Your task to perform on an android device: Go to Wikipedia Image 0: 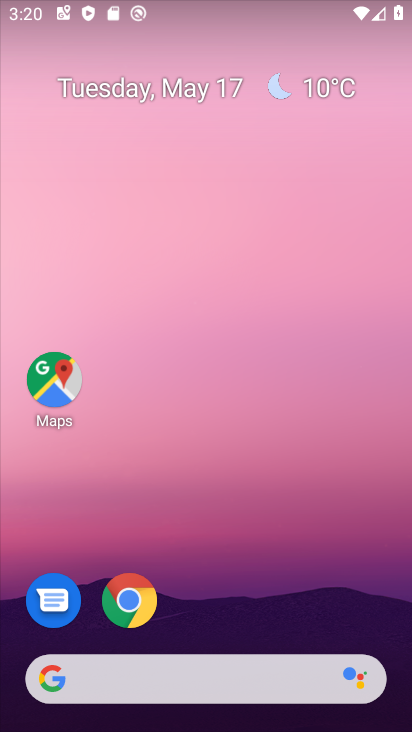
Step 0: click (106, 590)
Your task to perform on an android device: Go to Wikipedia Image 1: 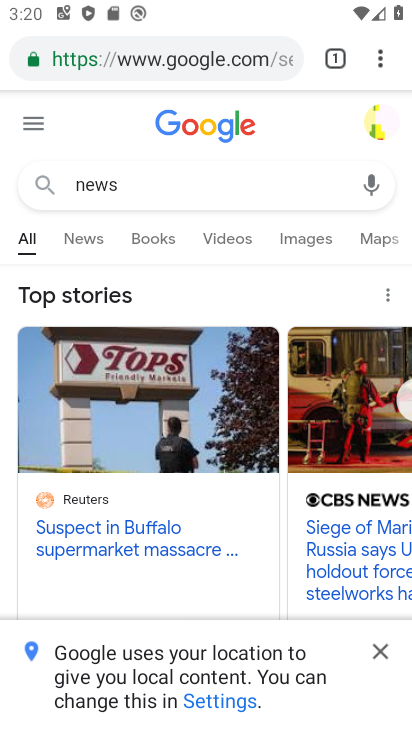
Step 1: click (344, 61)
Your task to perform on an android device: Go to Wikipedia Image 2: 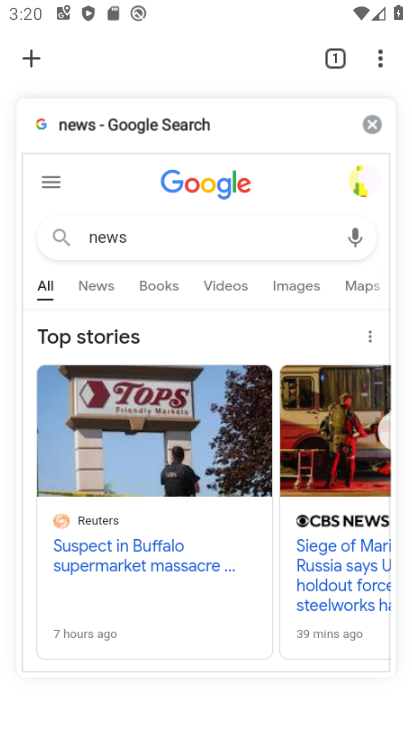
Step 2: click (35, 63)
Your task to perform on an android device: Go to Wikipedia Image 3: 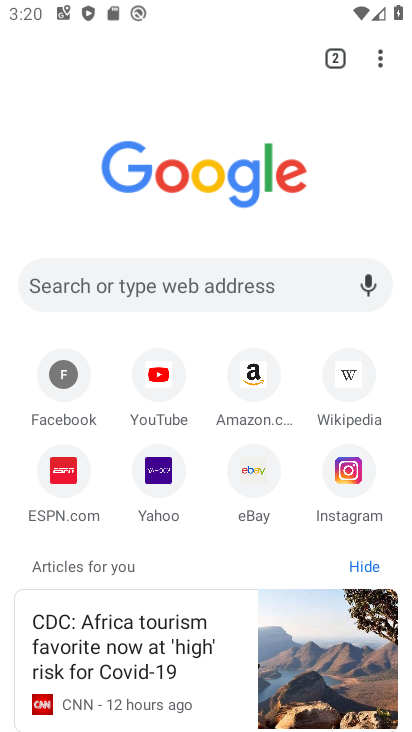
Step 3: click (361, 371)
Your task to perform on an android device: Go to Wikipedia Image 4: 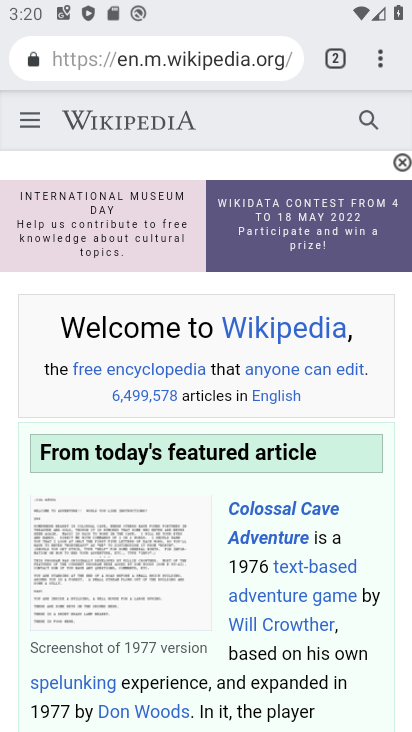
Step 4: task complete